Your task to perform on an android device: turn on showing notifications on the lock screen Image 0: 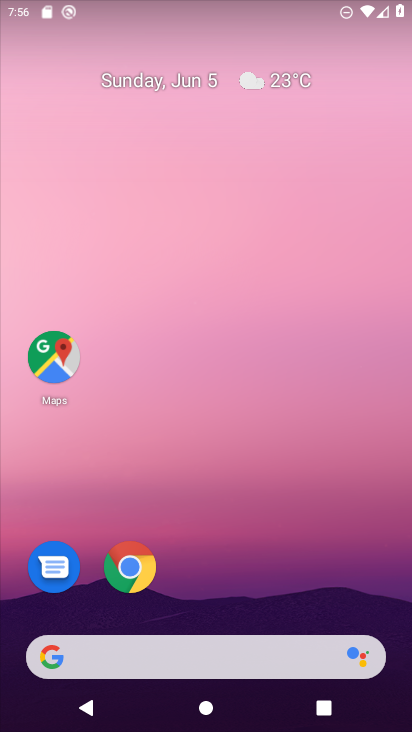
Step 0: drag from (394, 647) to (259, 28)
Your task to perform on an android device: turn on showing notifications on the lock screen Image 1: 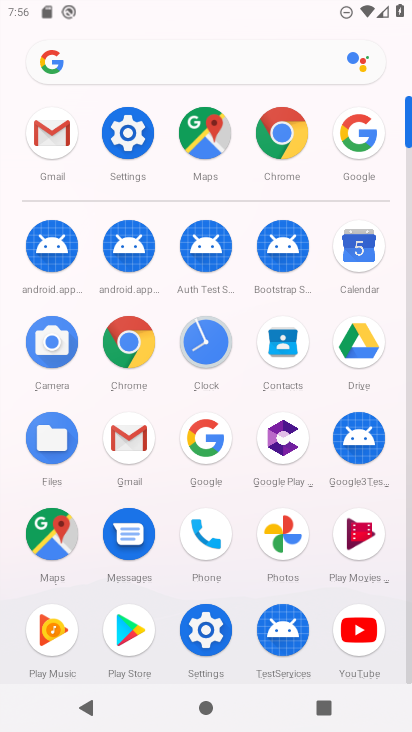
Step 1: click (121, 127)
Your task to perform on an android device: turn on showing notifications on the lock screen Image 2: 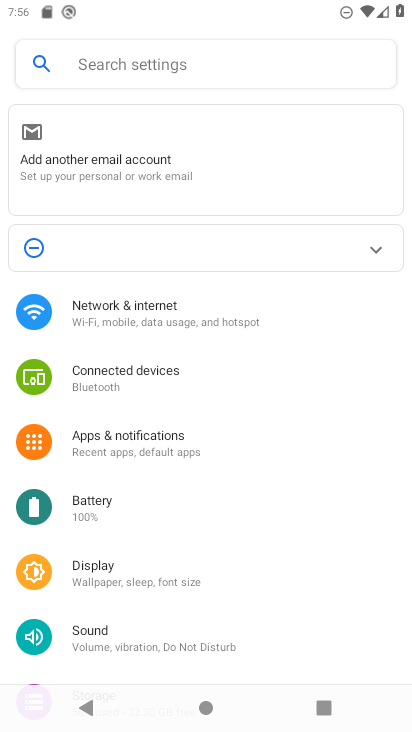
Step 2: click (72, 442)
Your task to perform on an android device: turn on showing notifications on the lock screen Image 3: 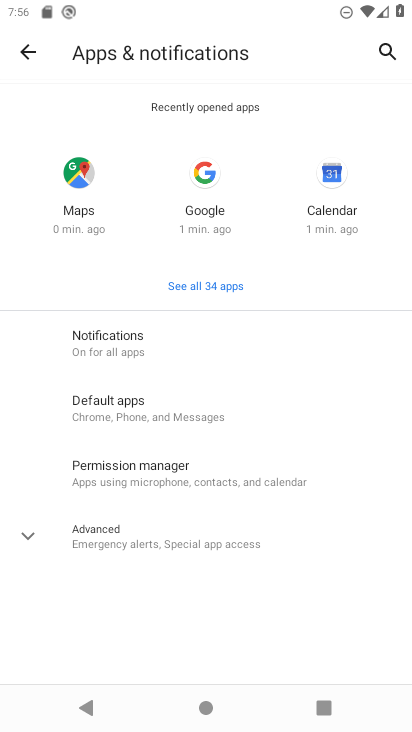
Step 3: click (161, 350)
Your task to perform on an android device: turn on showing notifications on the lock screen Image 4: 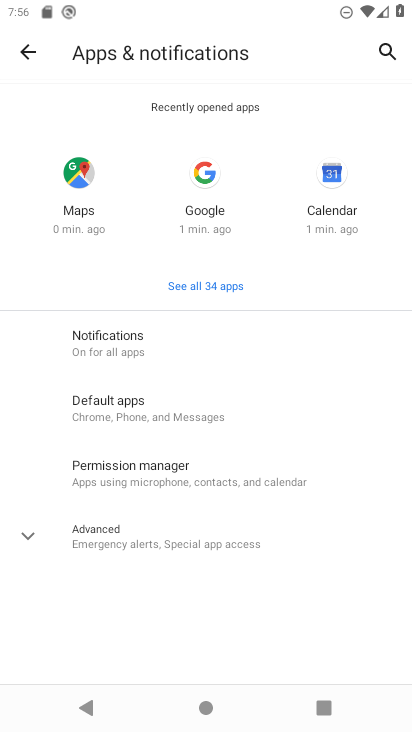
Step 4: drag from (273, 618) to (305, 390)
Your task to perform on an android device: turn on showing notifications on the lock screen Image 5: 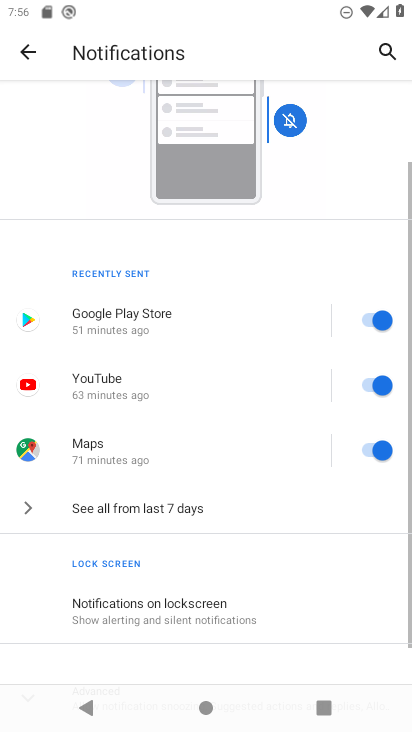
Step 5: click (294, 256)
Your task to perform on an android device: turn on showing notifications on the lock screen Image 6: 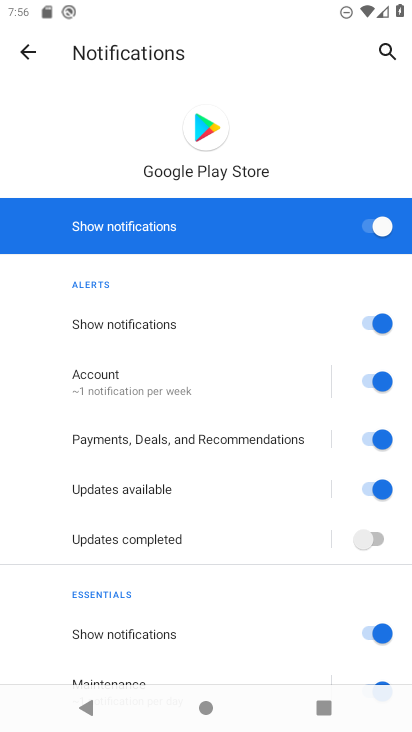
Step 6: press back button
Your task to perform on an android device: turn on showing notifications on the lock screen Image 7: 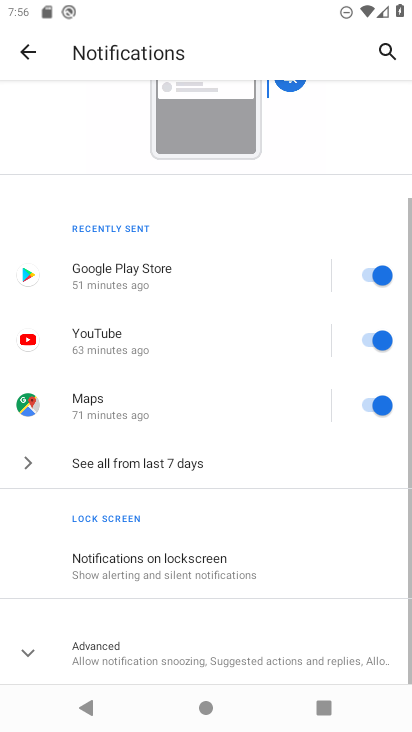
Step 7: click (200, 593)
Your task to perform on an android device: turn on showing notifications on the lock screen Image 8: 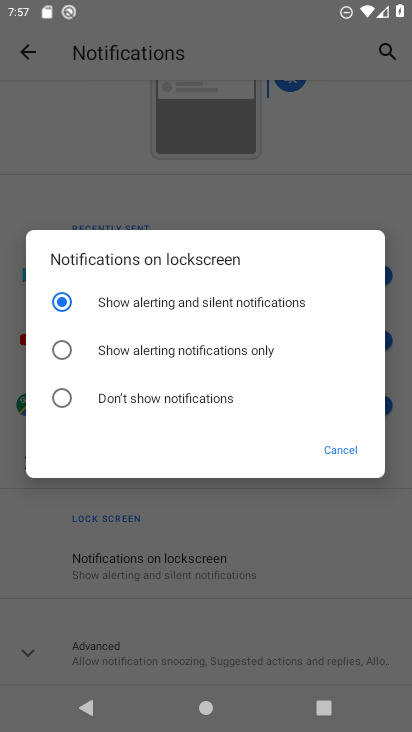
Step 8: task complete